Your task to perform on an android device: Open the stopwatch Image 0: 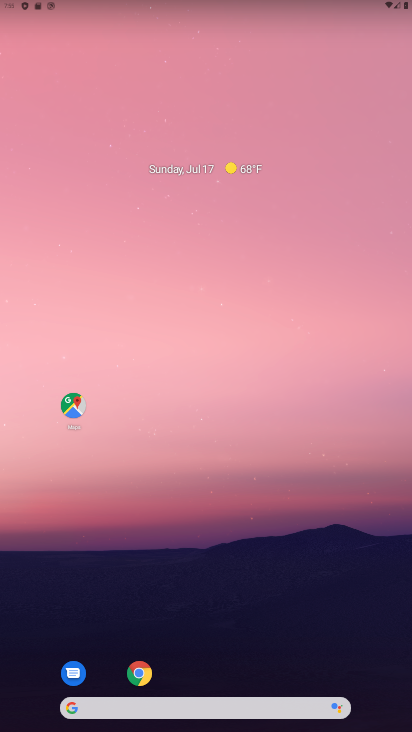
Step 0: drag from (266, 657) to (276, 6)
Your task to perform on an android device: Open the stopwatch Image 1: 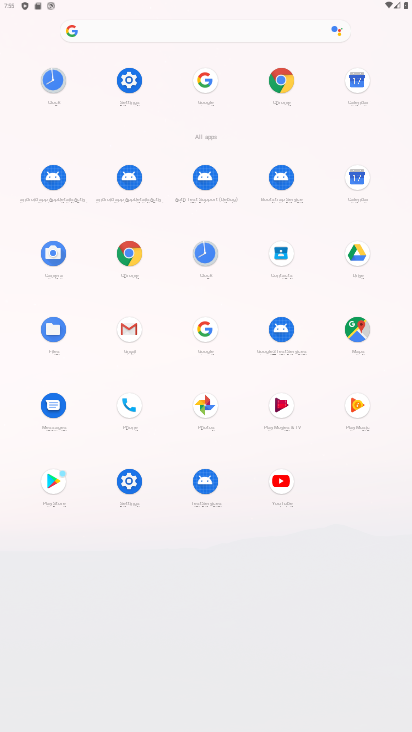
Step 1: click (203, 254)
Your task to perform on an android device: Open the stopwatch Image 2: 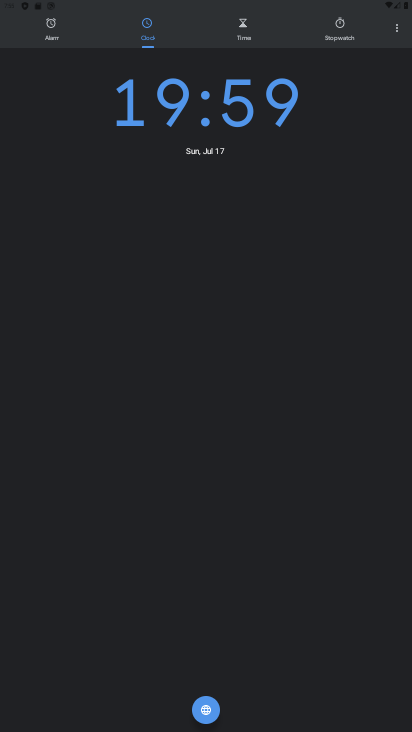
Step 2: click (344, 35)
Your task to perform on an android device: Open the stopwatch Image 3: 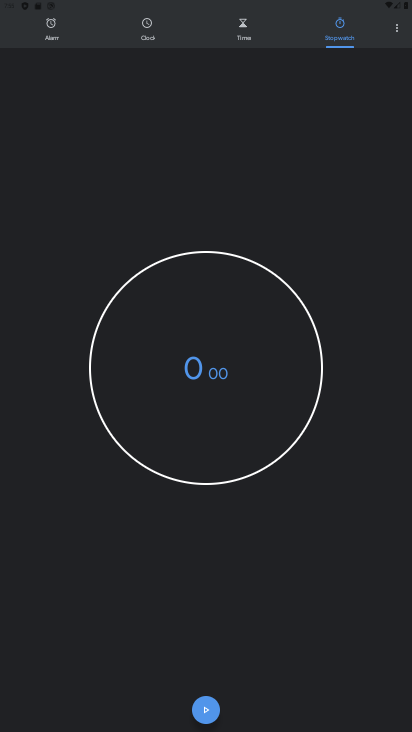
Step 3: task complete